Your task to perform on an android device: Open wifi settings Image 0: 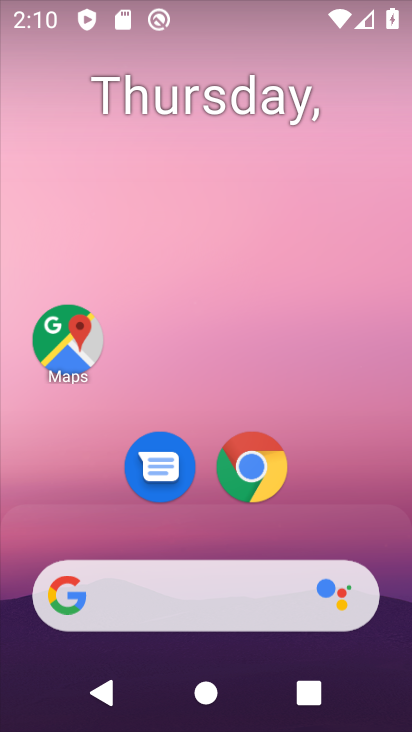
Step 0: drag from (198, 534) to (227, 96)
Your task to perform on an android device: Open wifi settings Image 1: 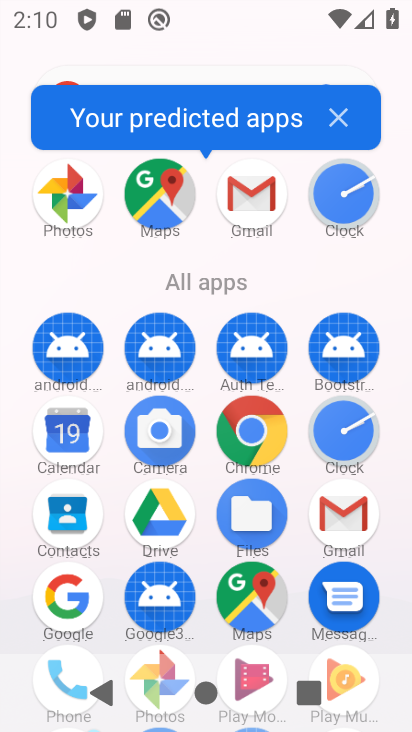
Step 1: drag from (209, 611) to (220, 232)
Your task to perform on an android device: Open wifi settings Image 2: 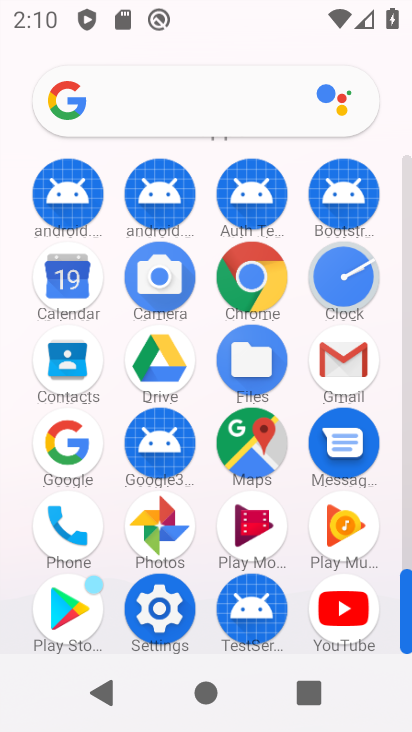
Step 2: click (156, 595)
Your task to perform on an android device: Open wifi settings Image 3: 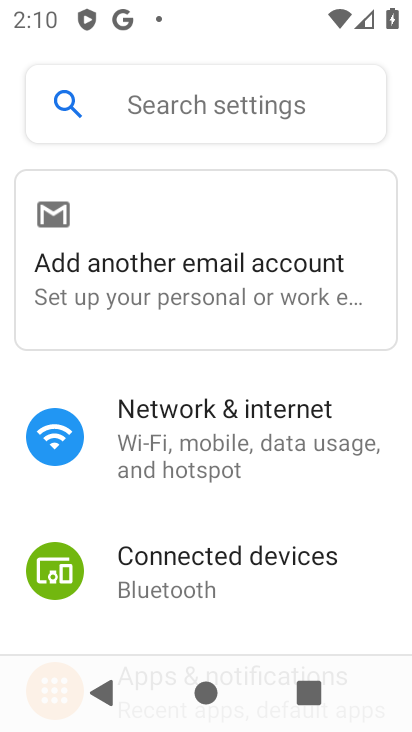
Step 3: click (220, 434)
Your task to perform on an android device: Open wifi settings Image 4: 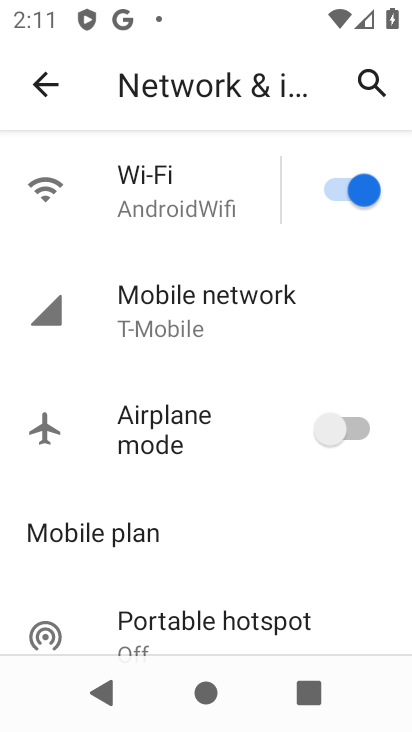
Step 4: click (214, 190)
Your task to perform on an android device: Open wifi settings Image 5: 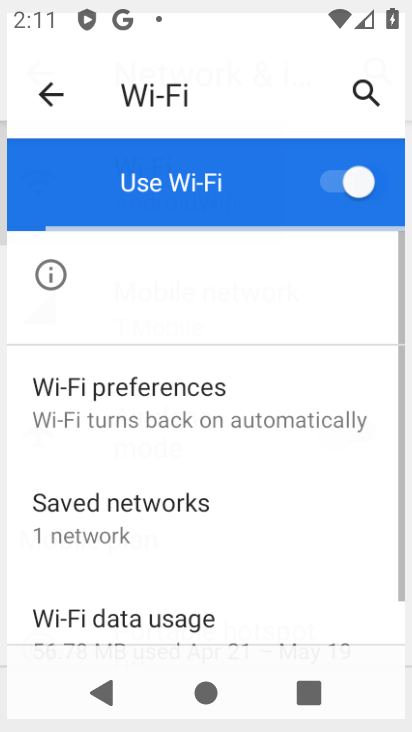
Step 5: task complete